Your task to perform on an android device: Search for a cheap bike on Walmart Image 0: 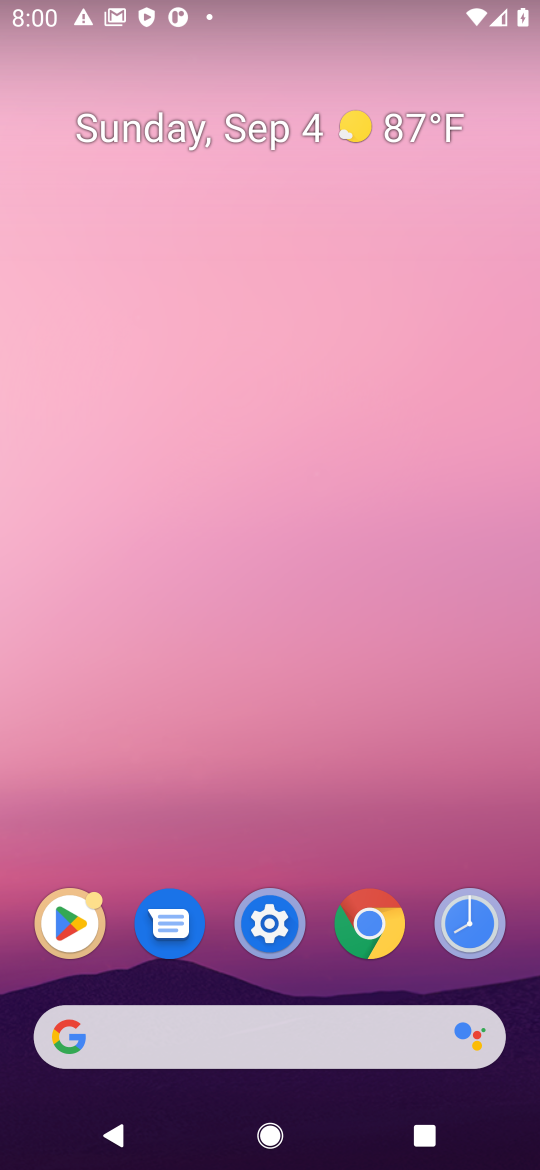
Step 0: press home button
Your task to perform on an android device: Search for a cheap bike on Walmart Image 1: 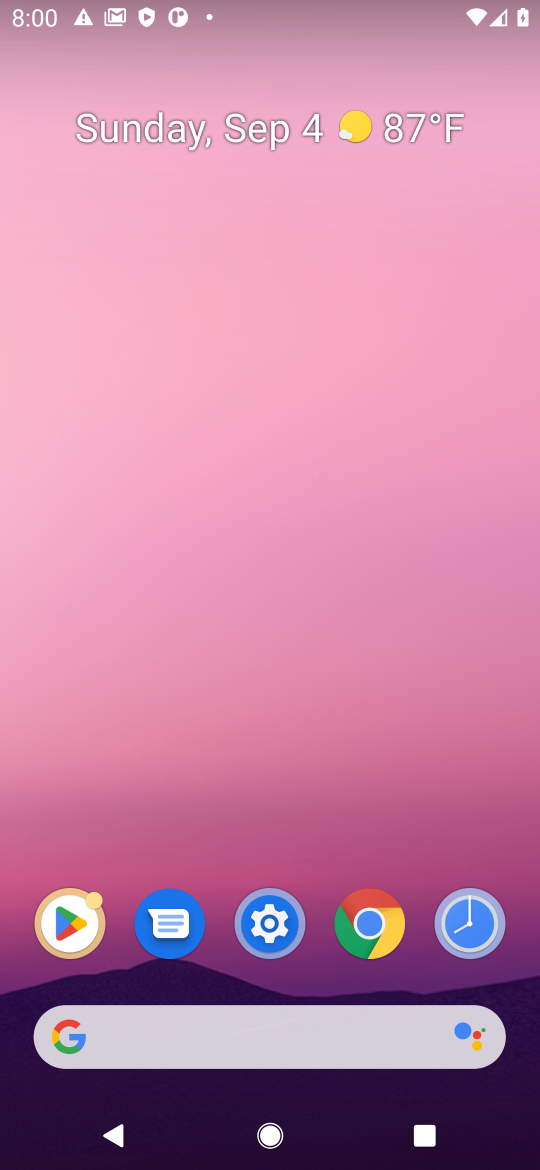
Step 1: click (341, 1040)
Your task to perform on an android device: Search for a cheap bike on Walmart Image 2: 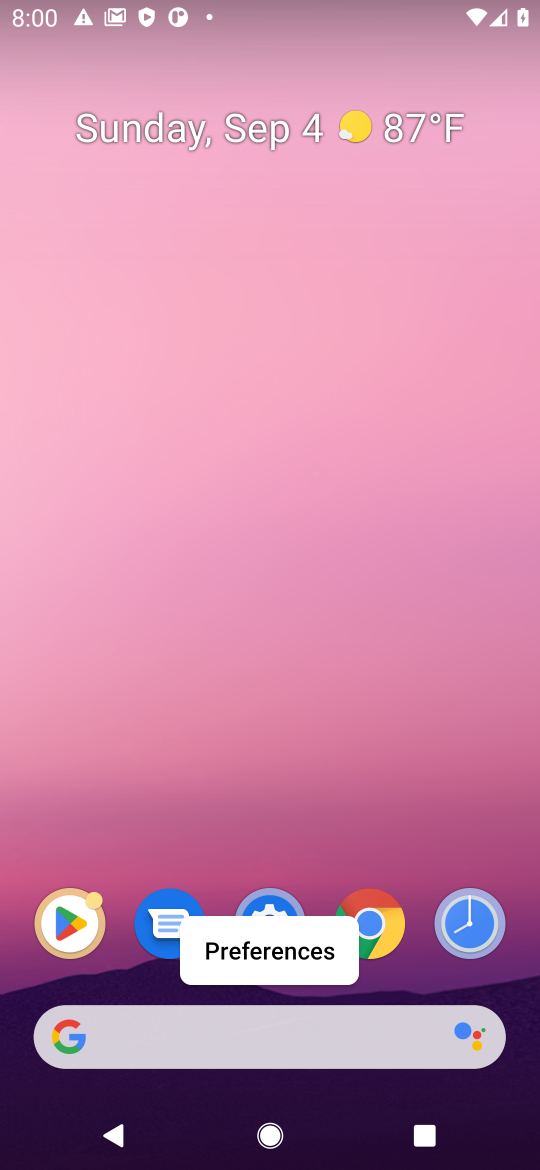
Step 2: click (341, 1040)
Your task to perform on an android device: Search for a cheap bike on Walmart Image 3: 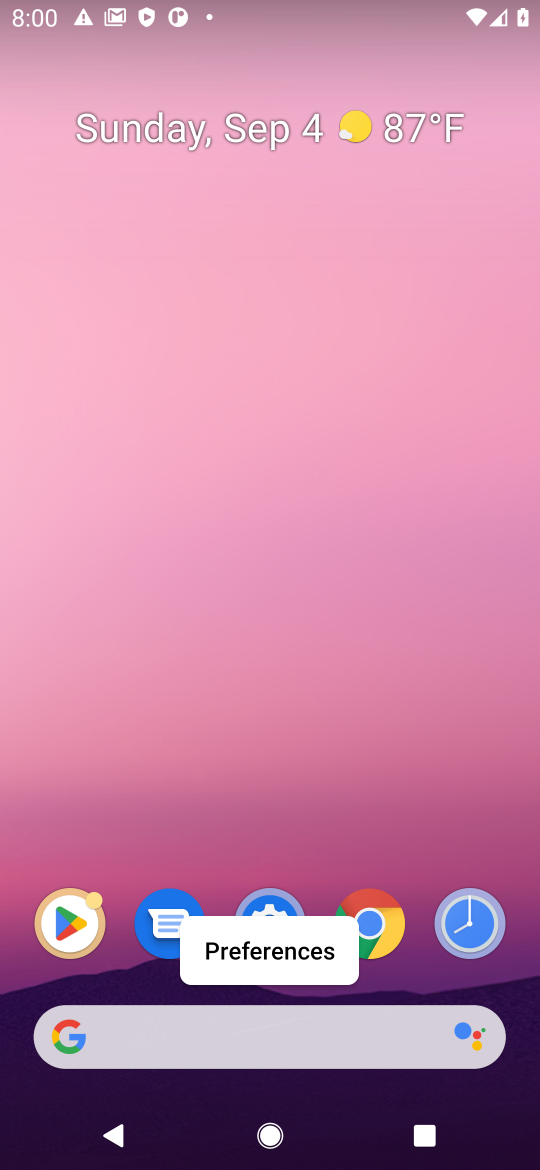
Step 3: click (341, 1040)
Your task to perform on an android device: Search for a cheap bike on Walmart Image 4: 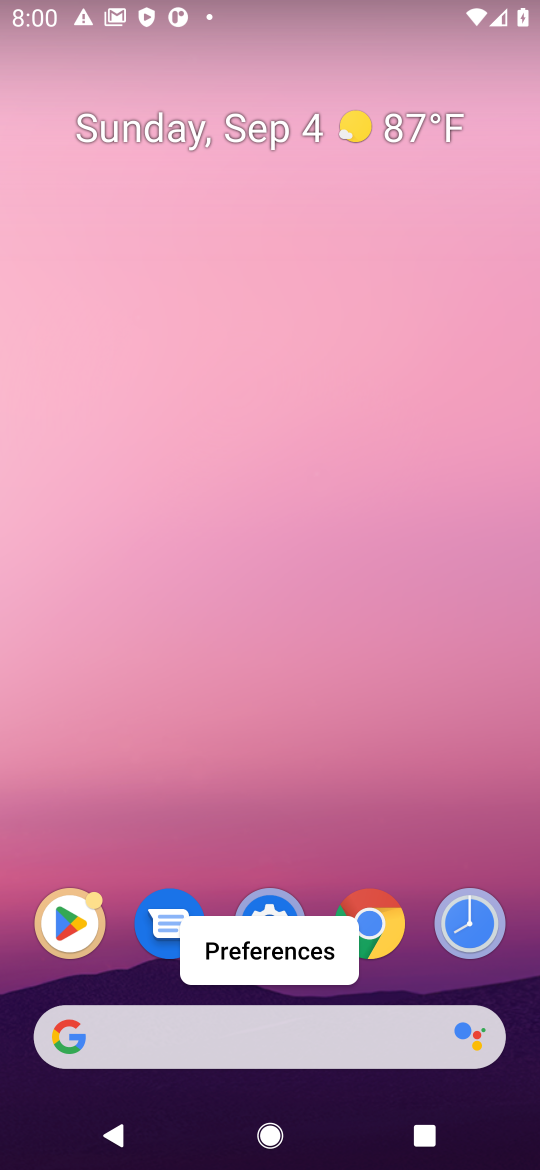
Step 4: click (363, 1038)
Your task to perform on an android device: Search for a cheap bike on Walmart Image 5: 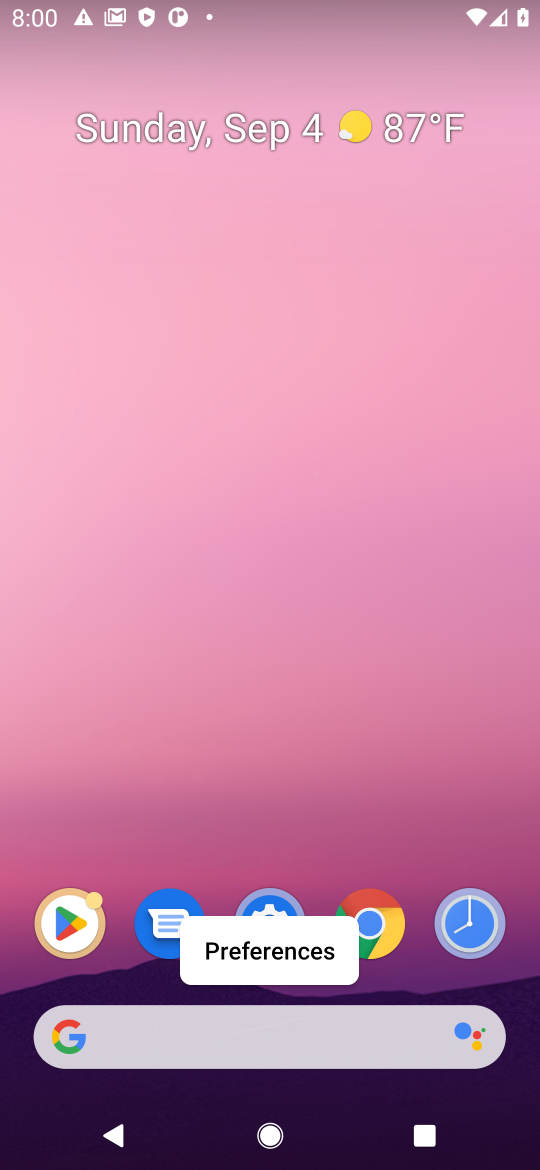
Step 5: click (313, 1045)
Your task to perform on an android device: Search for a cheap bike on Walmart Image 6: 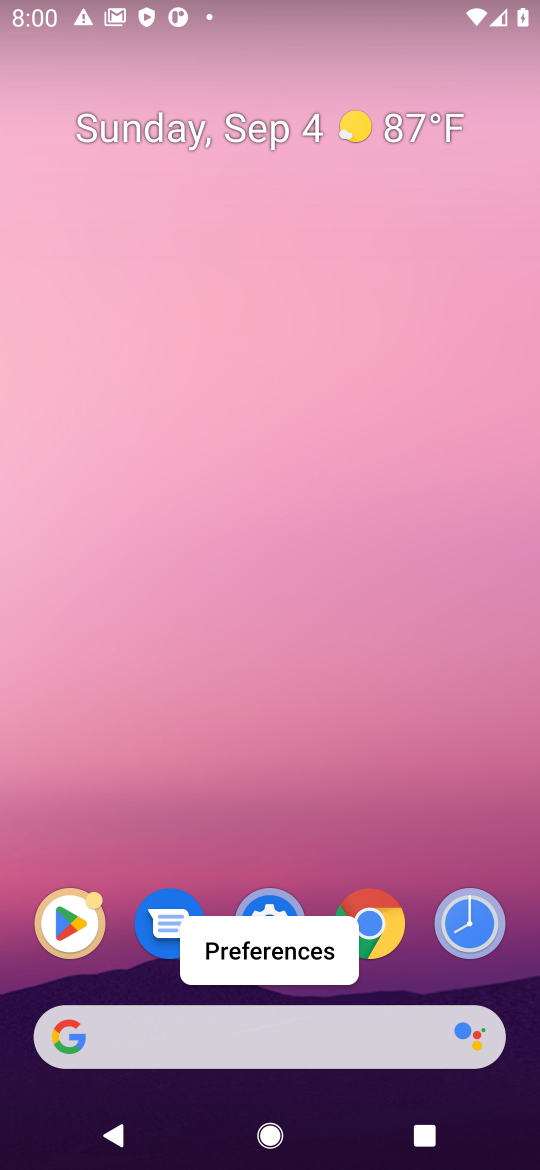
Step 6: drag from (486, 691) to (495, 51)
Your task to perform on an android device: Search for a cheap bike on Walmart Image 7: 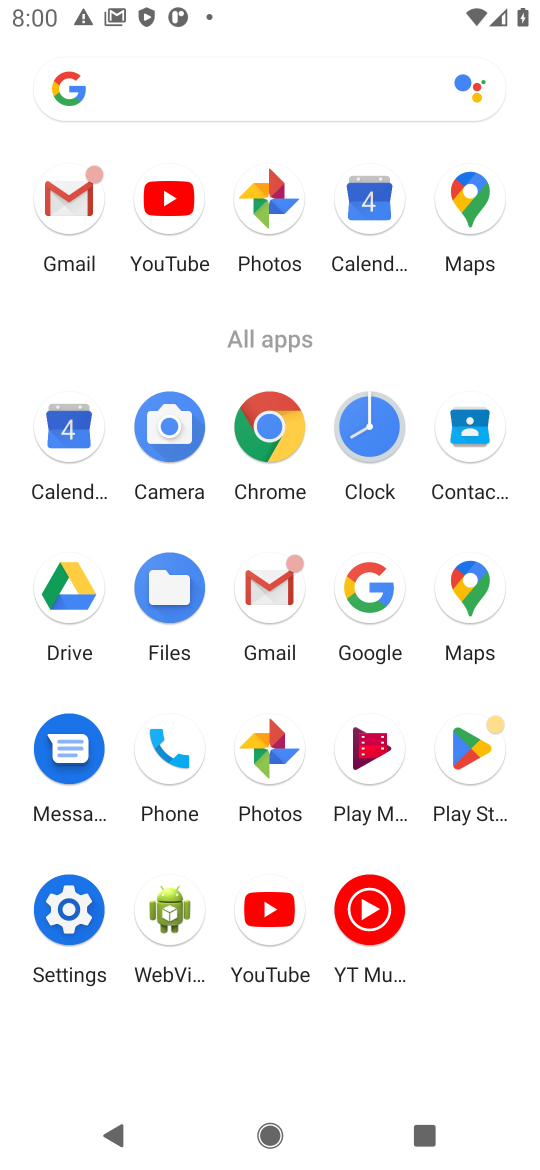
Step 7: click (352, 593)
Your task to perform on an android device: Search for a cheap bike on Walmart Image 8: 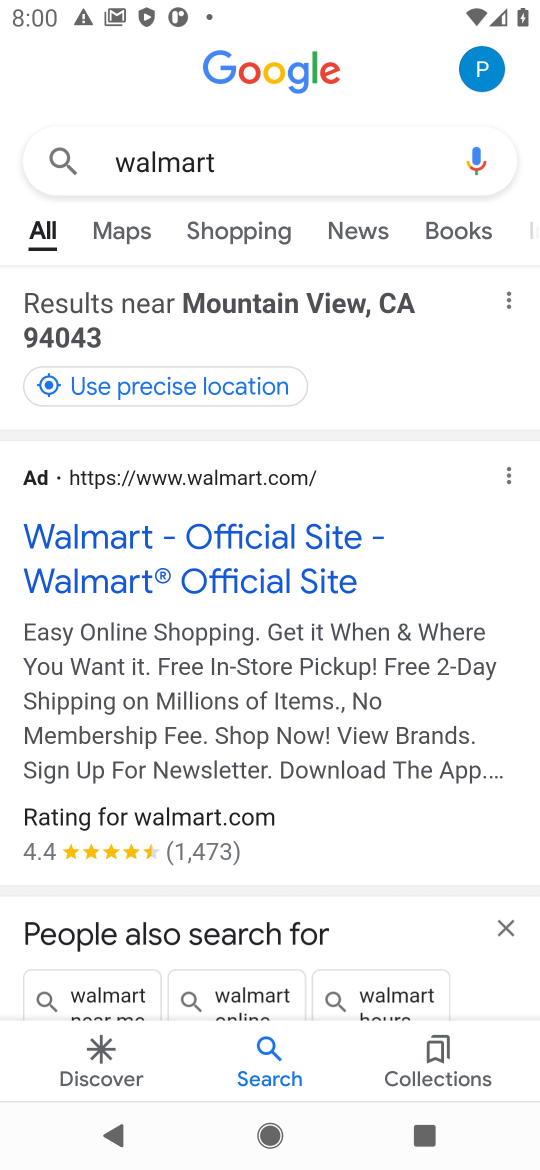
Step 8: click (260, 543)
Your task to perform on an android device: Search for a cheap bike on Walmart Image 9: 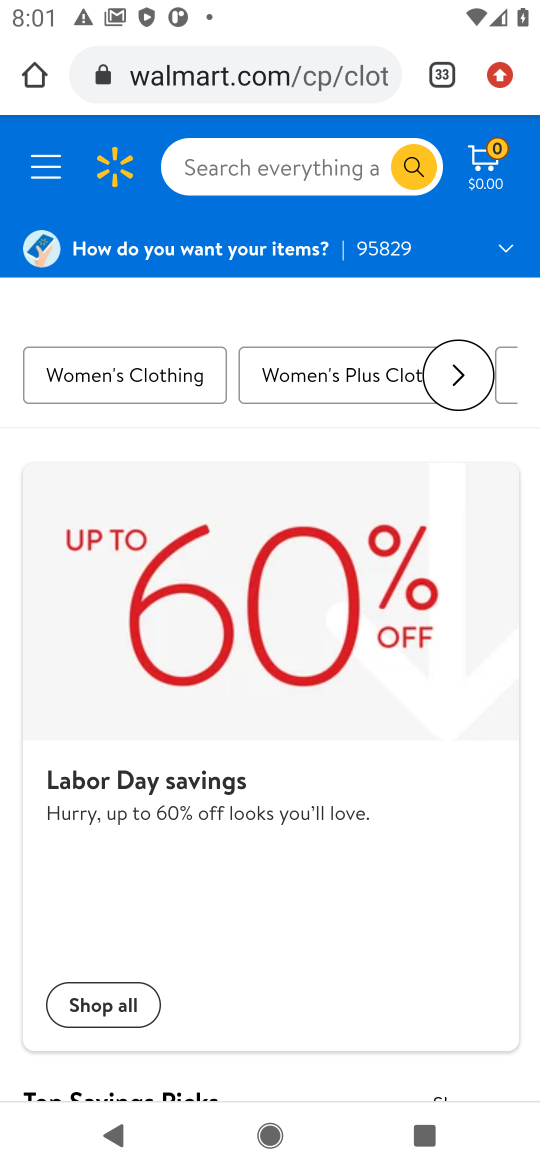
Step 9: click (226, 152)
Your task to perform on an android device: Search for a cheap bike on Walmart Image 10: 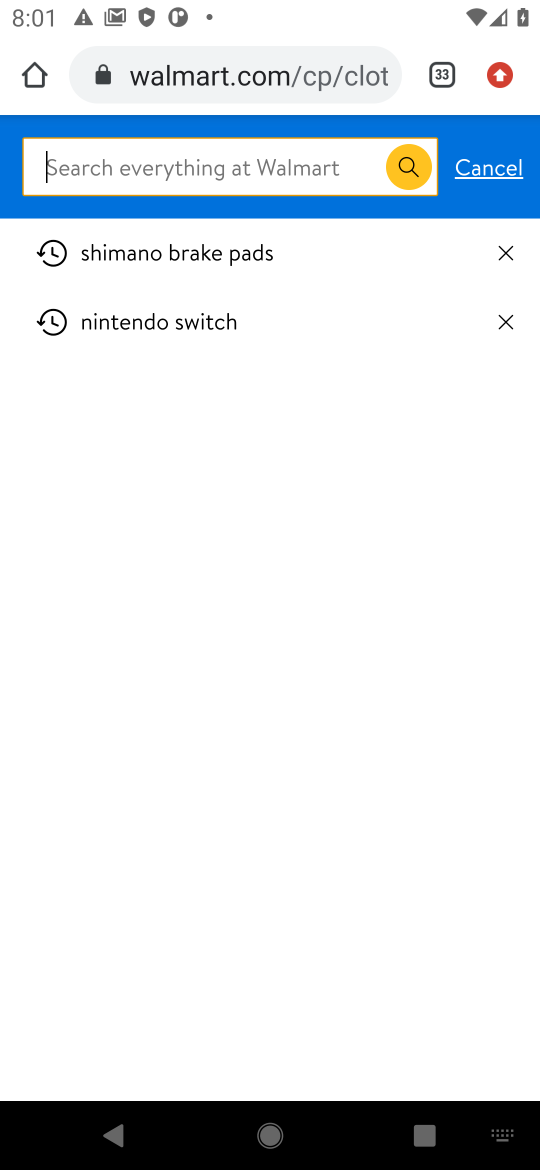
Step 10: press enter
Your task to perform on an android device: Search for a cheap bike on Walmart Image 11: 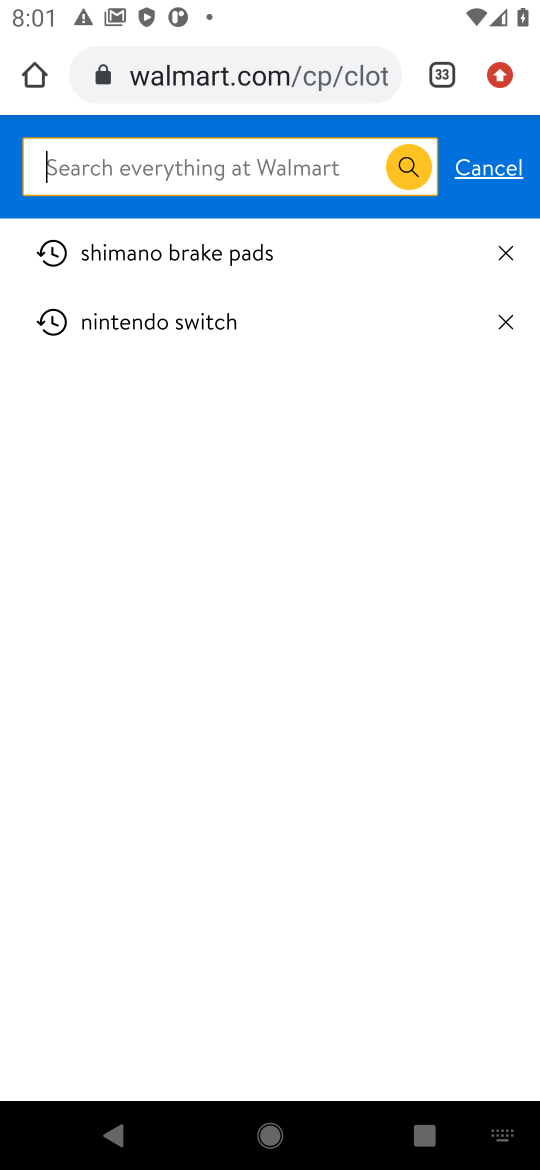
Step 11: type "cheap bike"
Your task to perform on an android device: Search for a cheap bike on Walmart Image 12: 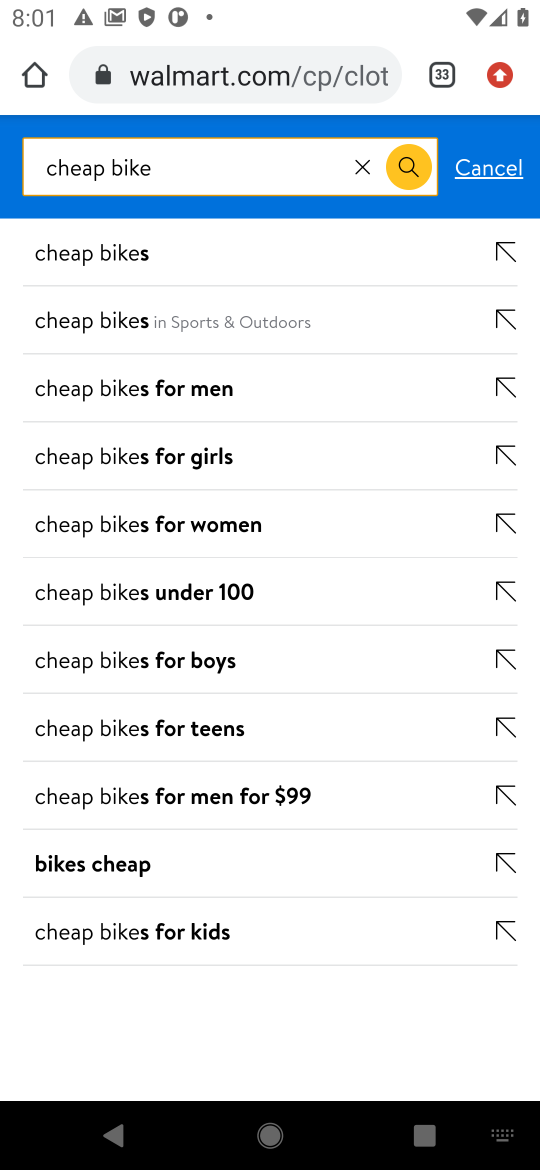
Step 12: click (153, 254)
Your task to perform on an android device: Search for a cheap bike on Walmart Image 13: 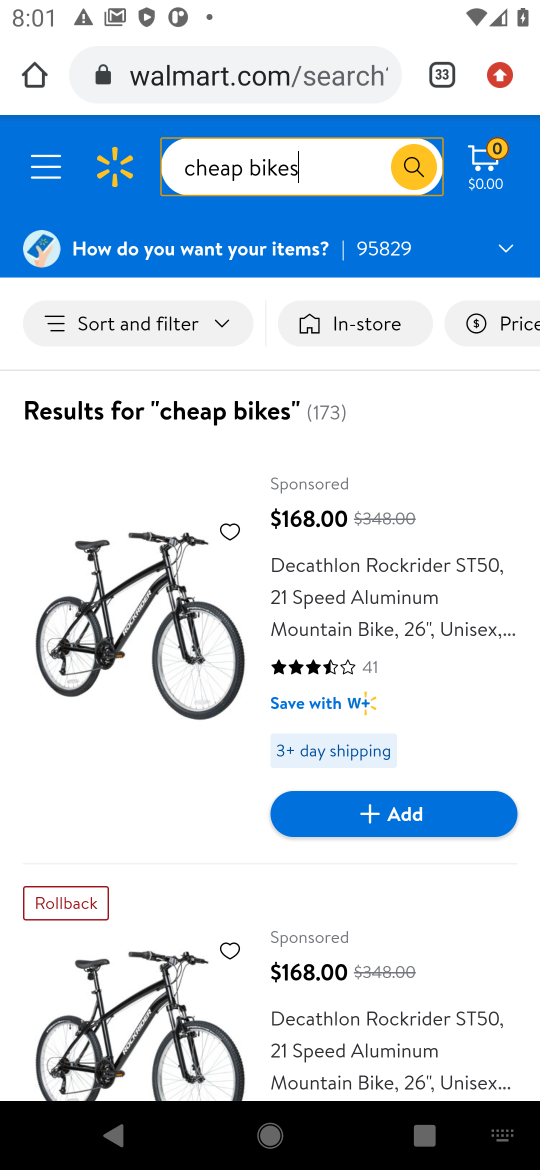
Step 13: task complete